Your task to perform on an android device: turn on showing notifications on the lock screen Image 0: 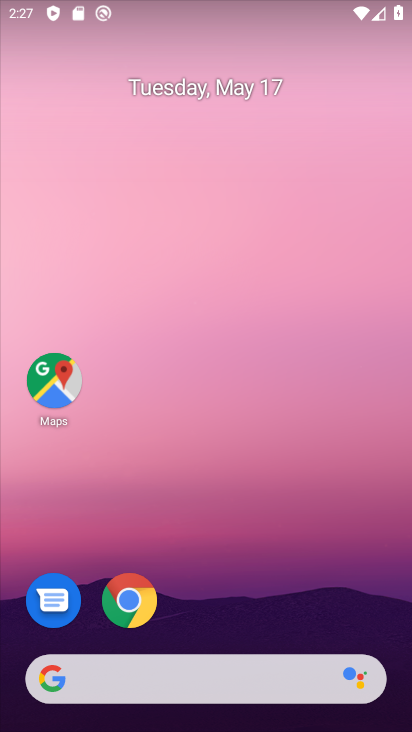
Step 0: drag from (209, 637) to (293, 135)
Your task to perform on an android device: turn on showing notifications on the lock screen Image 1: 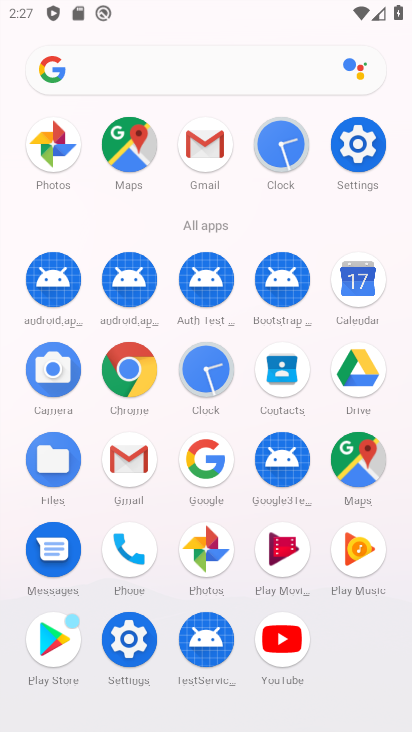
Step 1: click (363, 141)
Your task to perform on an android device: turn on showing notifications on the lock screen Image 2: 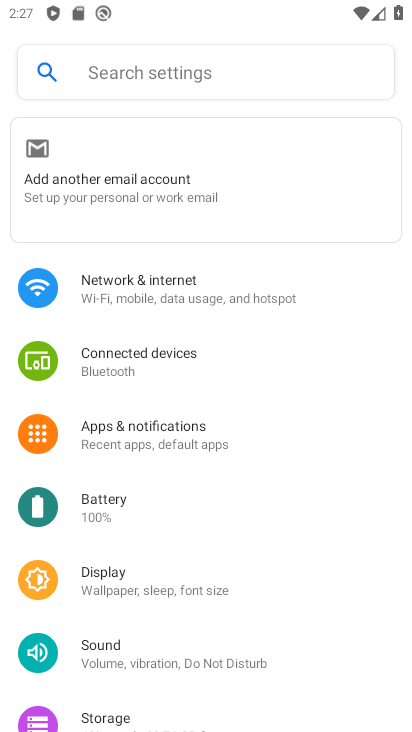
Step 2: drag from (211, 555) to (310, 282)
Your task to perform on an android device: turn on showing notifications on the lock screen Image 3: 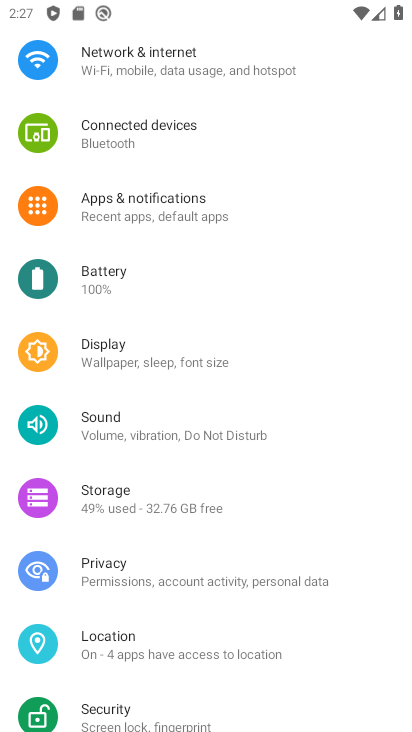
Step 3: click (198, 210)
Your task to perform on an android device: turn on showing notifications on the lock screen Image 4: 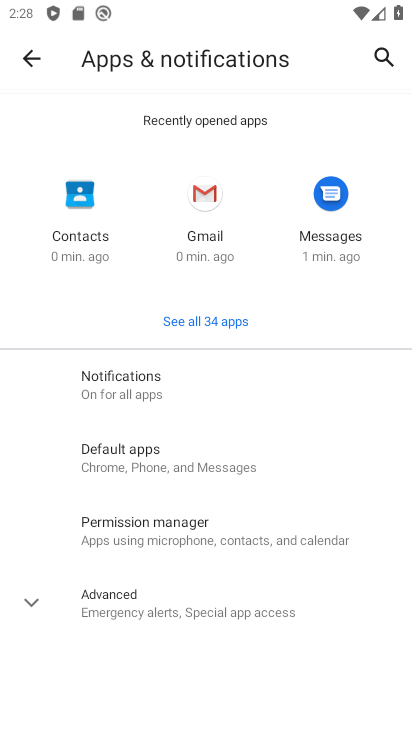
Step 4: click (226, 400)
Your task to perform on an android device: turn on showing notifications on the lock screen Image 5: 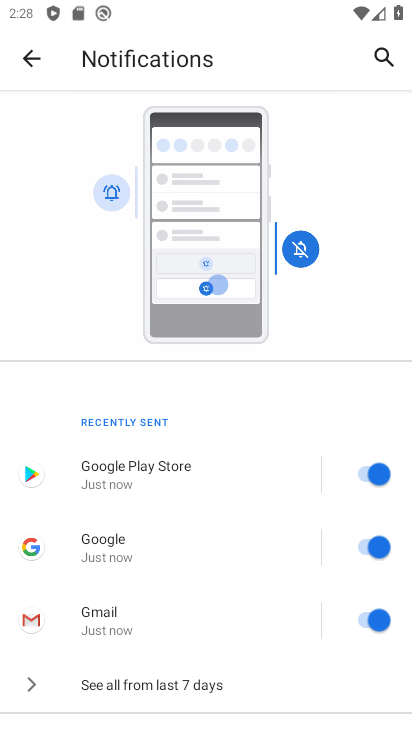
Step 5: drag from (193, 631) to (285, 249)
Your task to perform on an android device: turn on showing notifications on the lock screen Image 6: 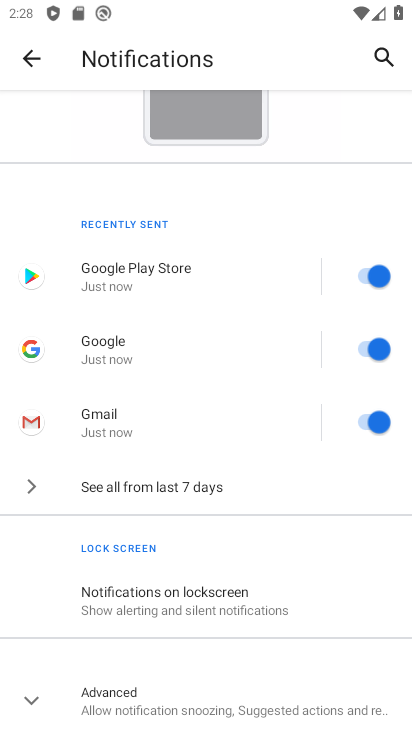
Step 6: click (232, 622)
Your task to perform on an android device: turn on showing notifications on the lock screen Image 7: 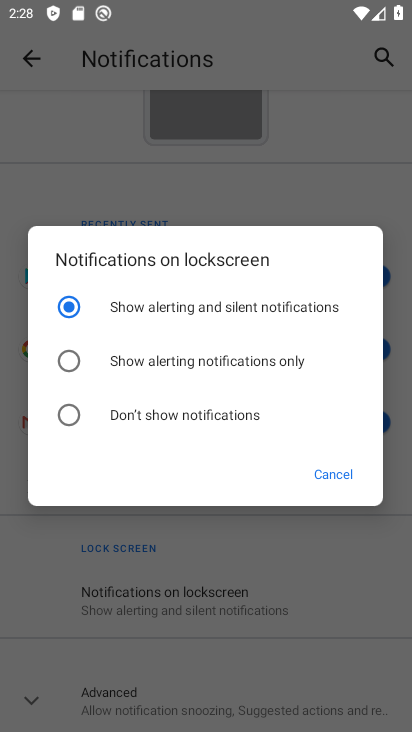
Step 7: task complete